Your task to perform on an android device: open app "ColorNote Notepad Notes" Image 0: 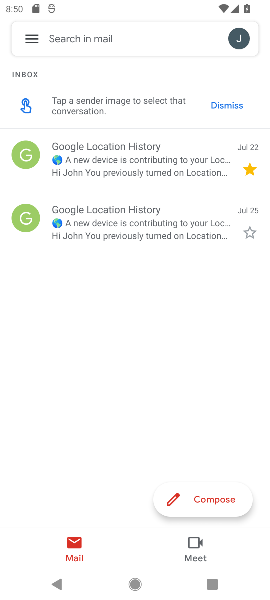
Step 0: press home button
Your task to perform on an android device: open app "ColorNote Notepad Notes" Image 1: 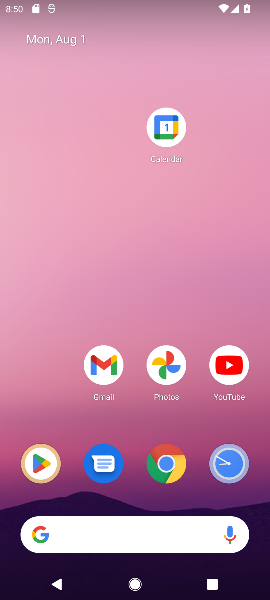
Step 1: click (56, 474)
Your task to perform on an android device: open app "ColorNote Notepad Notes" Image 2: 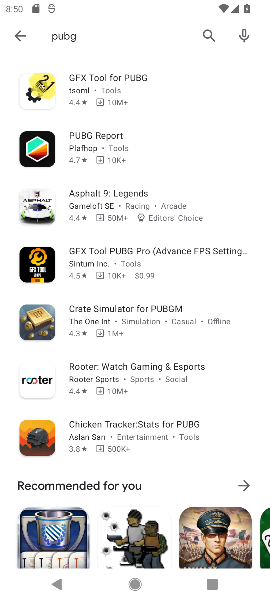
Step 2: click (210, 36)
Your task to perform on an android device: open app "ColorNote Notepad Notes" Image 3: 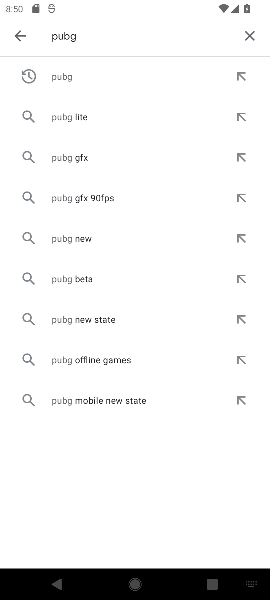
Step 3: click (238, 36)
Your task to perform on an android device: open app "ColorNote Notepad Notes" Image 4: 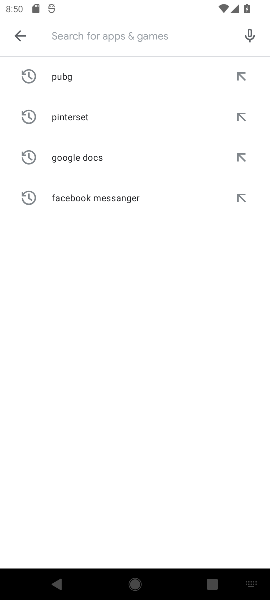
Step 4: type "colornotepad"
Your task to perform on an android device: open app "ColorNote Notepad Notes" Image 5: 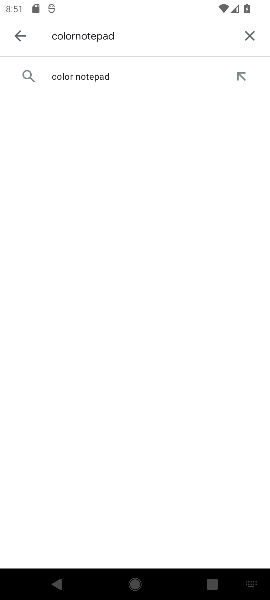
Step 5: click (121, 74)
Your task to perform on an android device: open app "ColorNote Notepad Notes" Image 6: 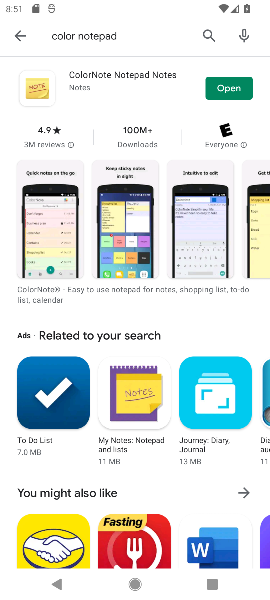
Step 6: click (171, 87)
Your task to perform on an android device: open app "ColorNote Notepad Notes" Image 7: 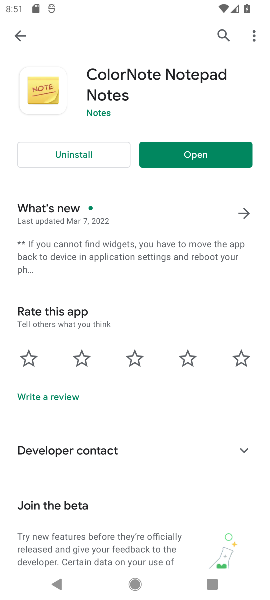
Step 7: task complete